Your task to perform on an android device: open app "Google Sheets" Image 0: 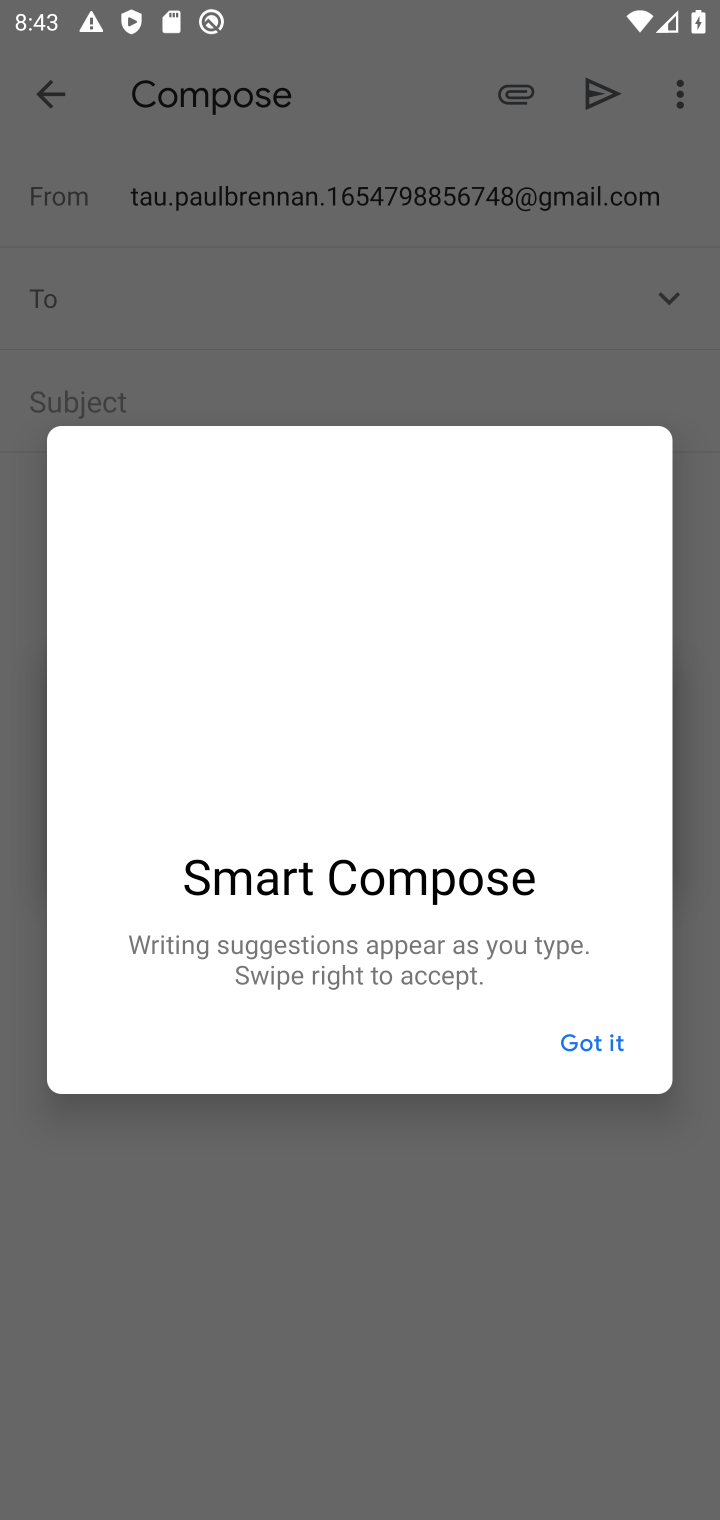
Step 0: press home button
Your task to perform on an android device: open app "Google Sheets" Image 1: 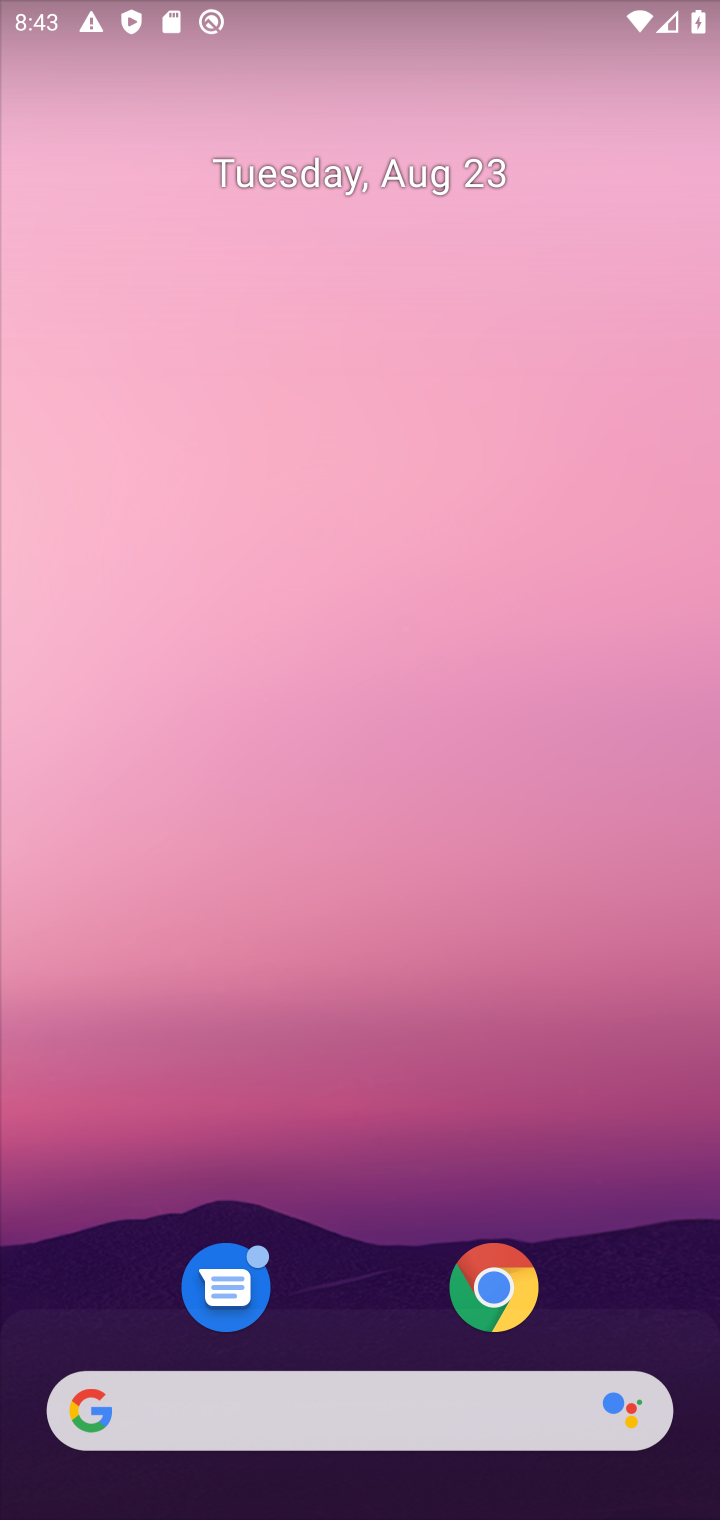
Step 1: drag from (372, 1344) to (590, 324)
Your task to perform on an android device: open app "Google Sheets" Image 2: 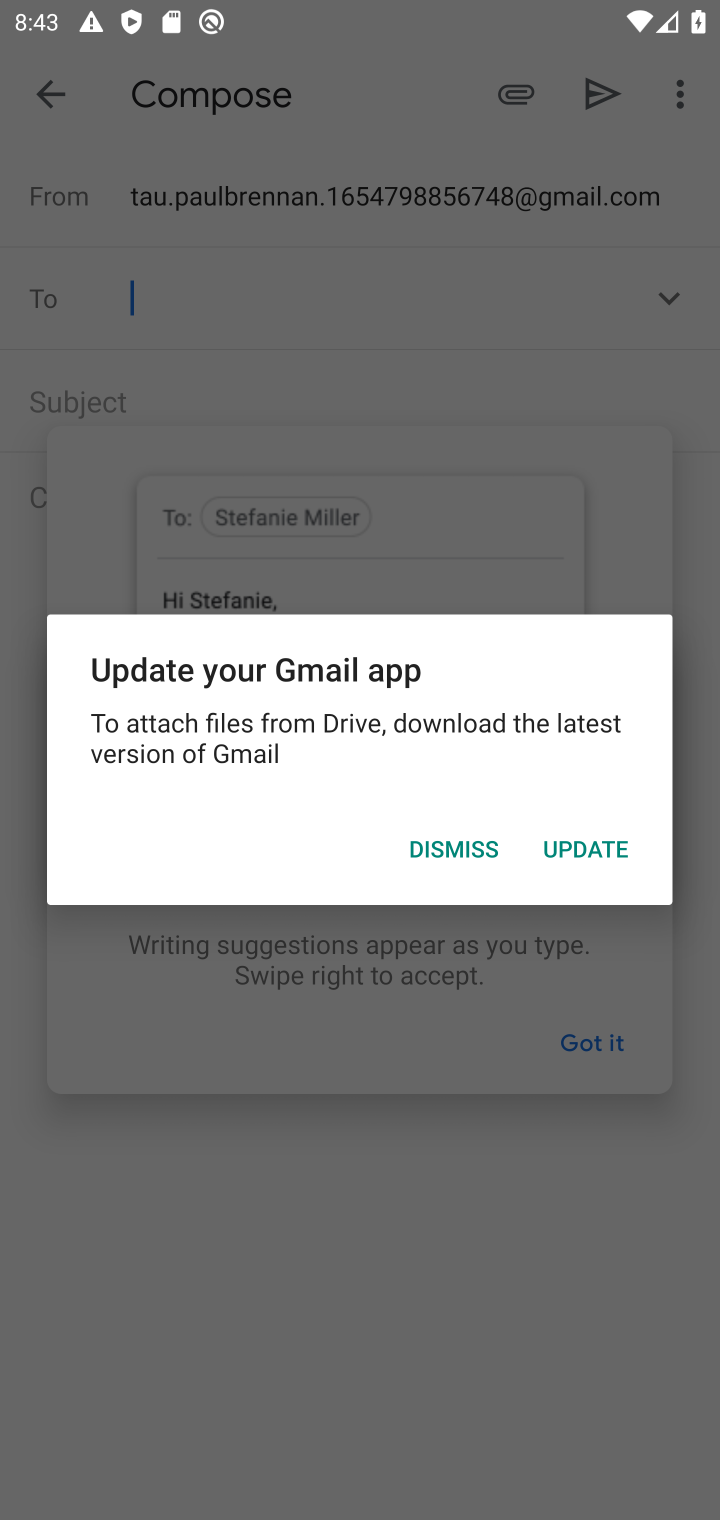
Step 2: press home button
Your task to perform on an android device: open app "Google Sheets" Image 3: 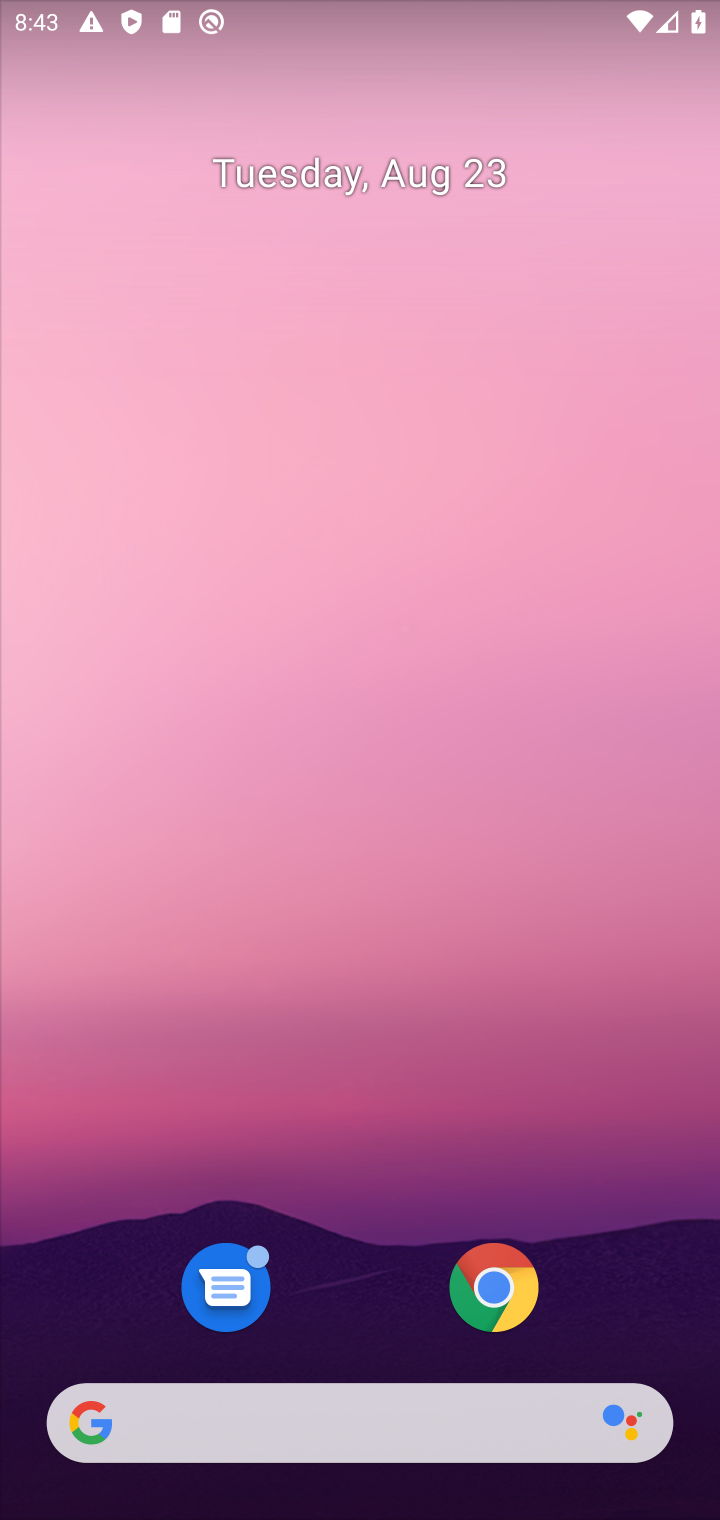
Step 3: drag from (376, 1380) to (399, 219)
Your task to perform on an android device: open app "Google Sheets" Image 4: 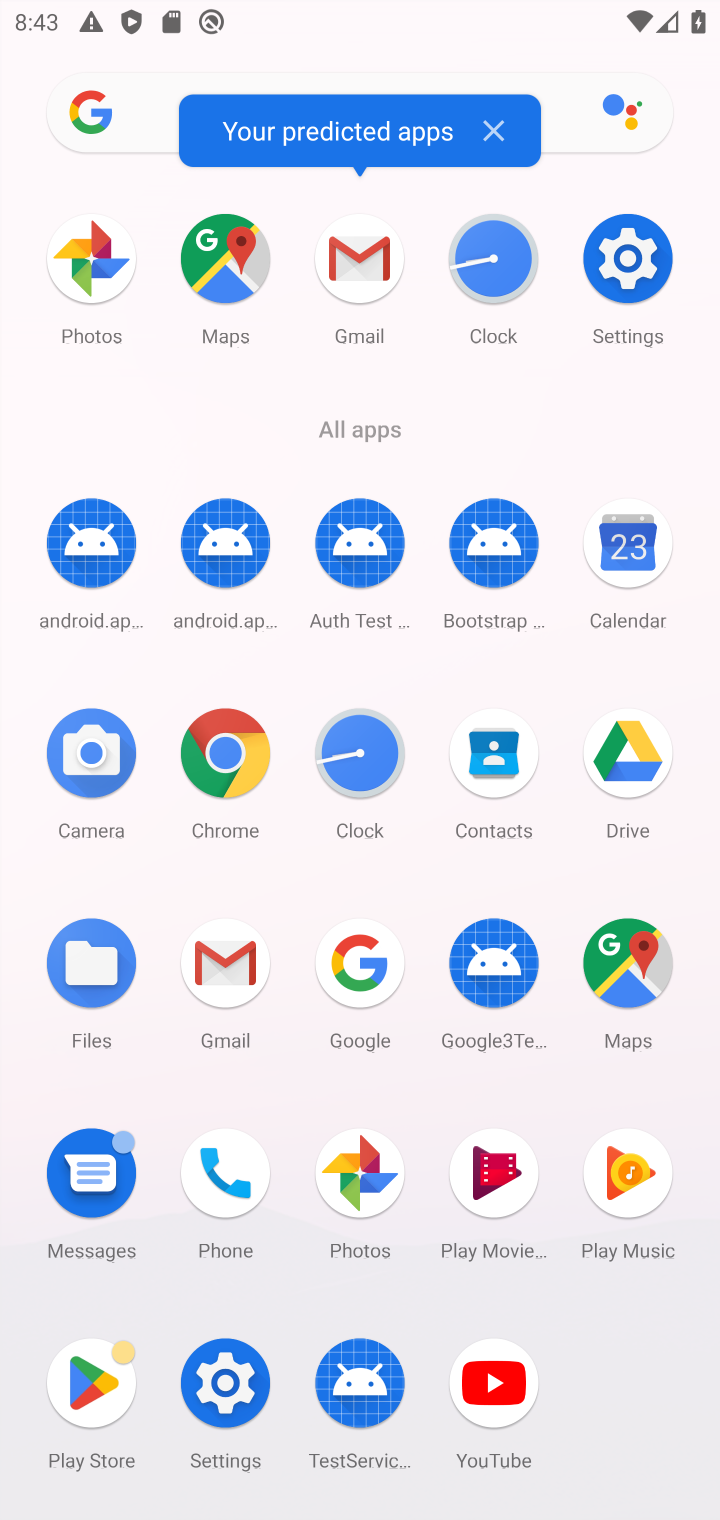
Step 4: drag from (86, 1383) to (369, 709)
Your task to perform on an android device: open app "Google Sheets" Image 5: 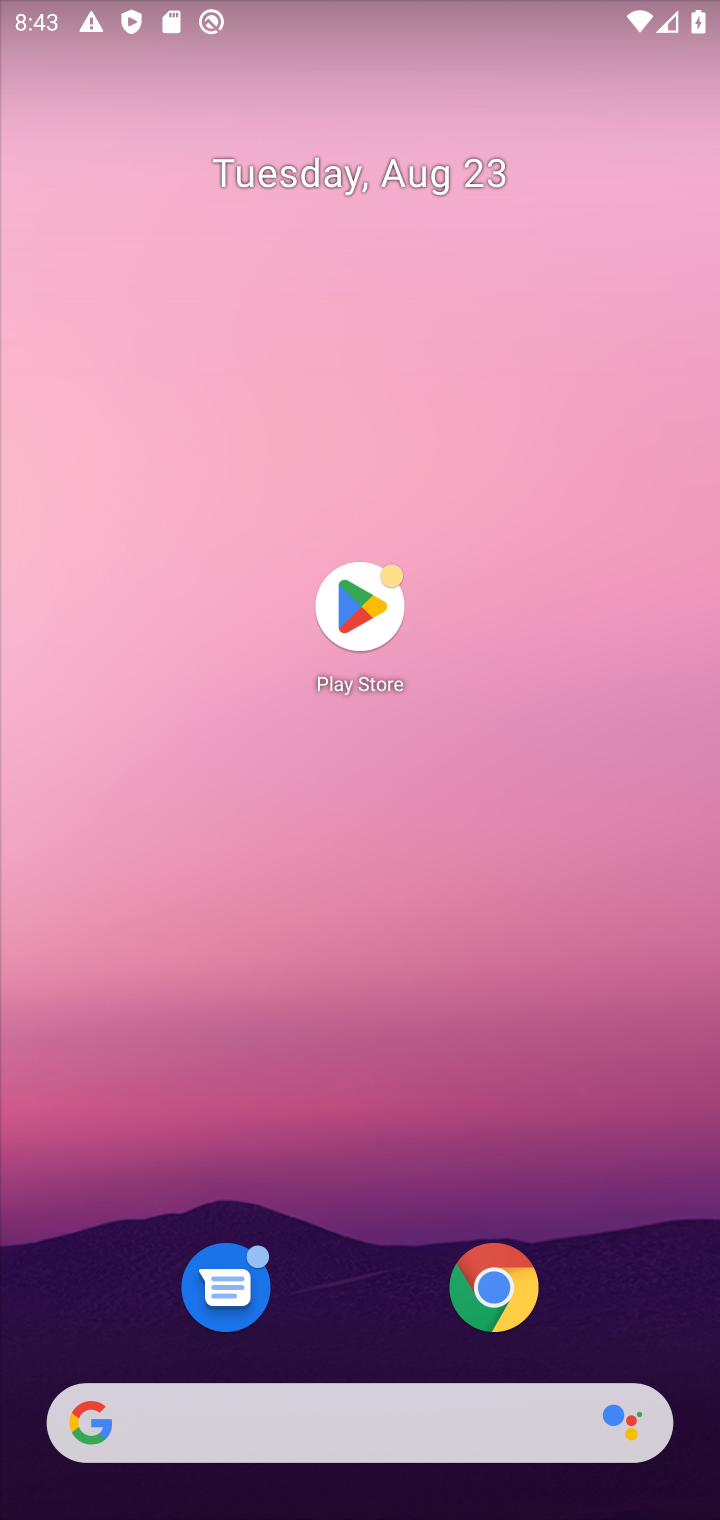
Step 5: click (363, 625)
Your task to perform on an android device: open app "Google Sheets" Image 6: 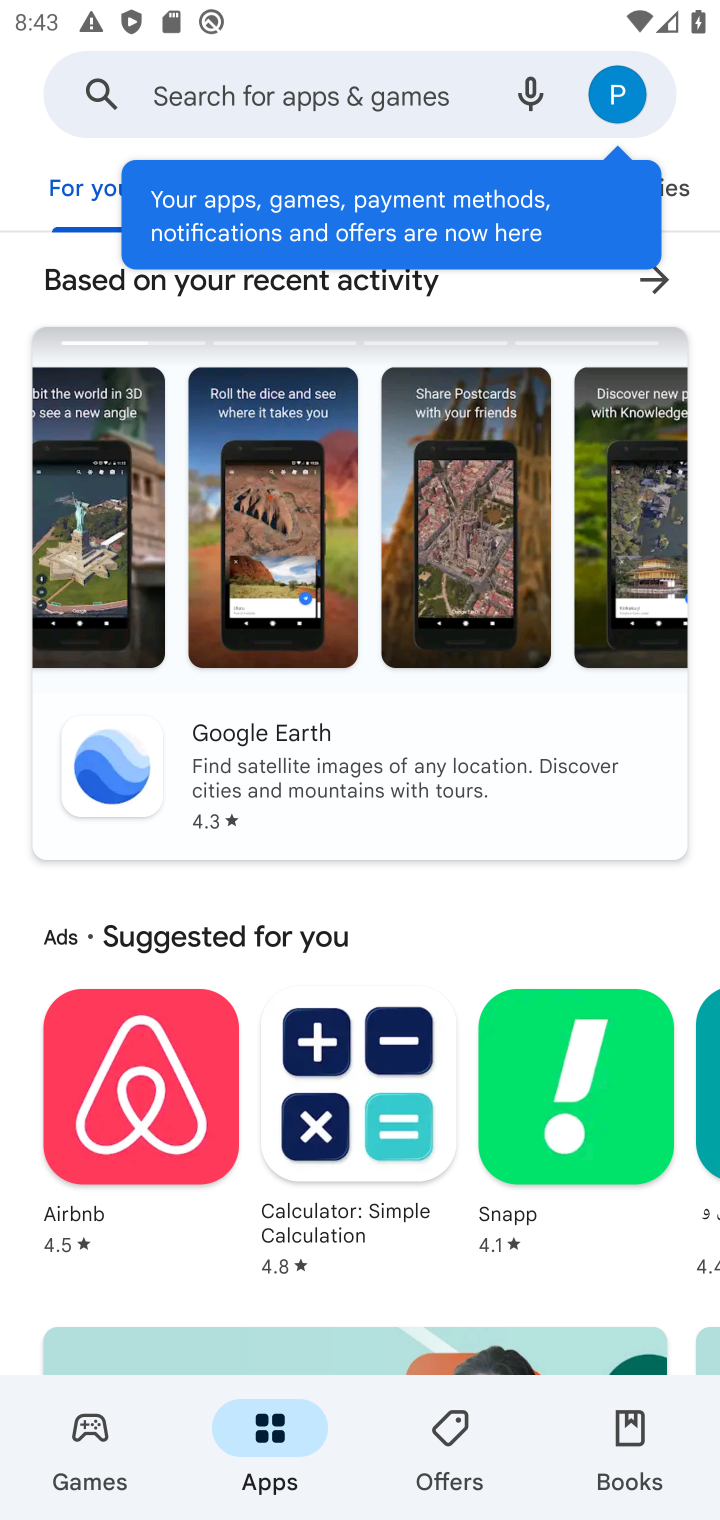
Step 6: click (337, 90)
Your task to perform on an android device: open app "Google Sheets" Image 7: 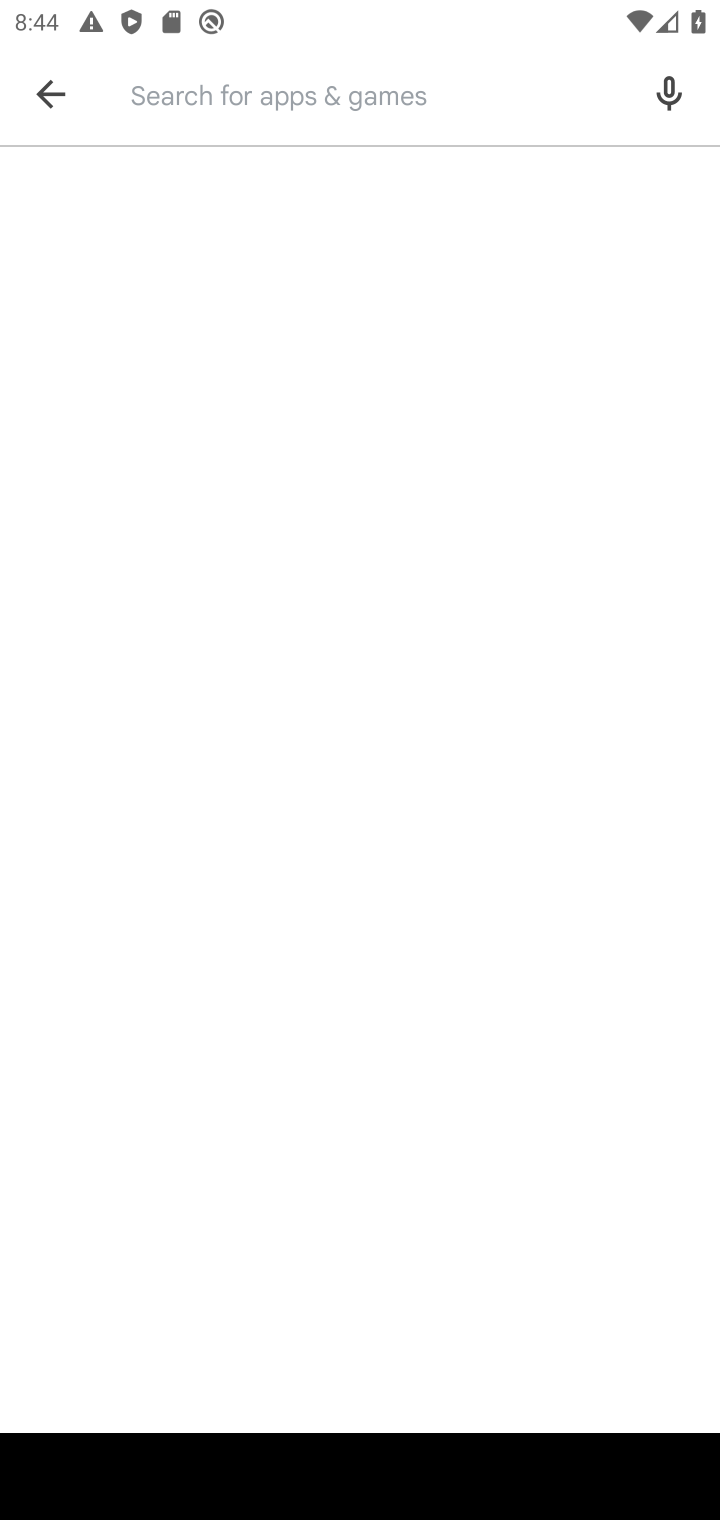
Step 7: type "Google Sheets"
Your task to perform on an android device: open app "Google Sheets" Image 8: 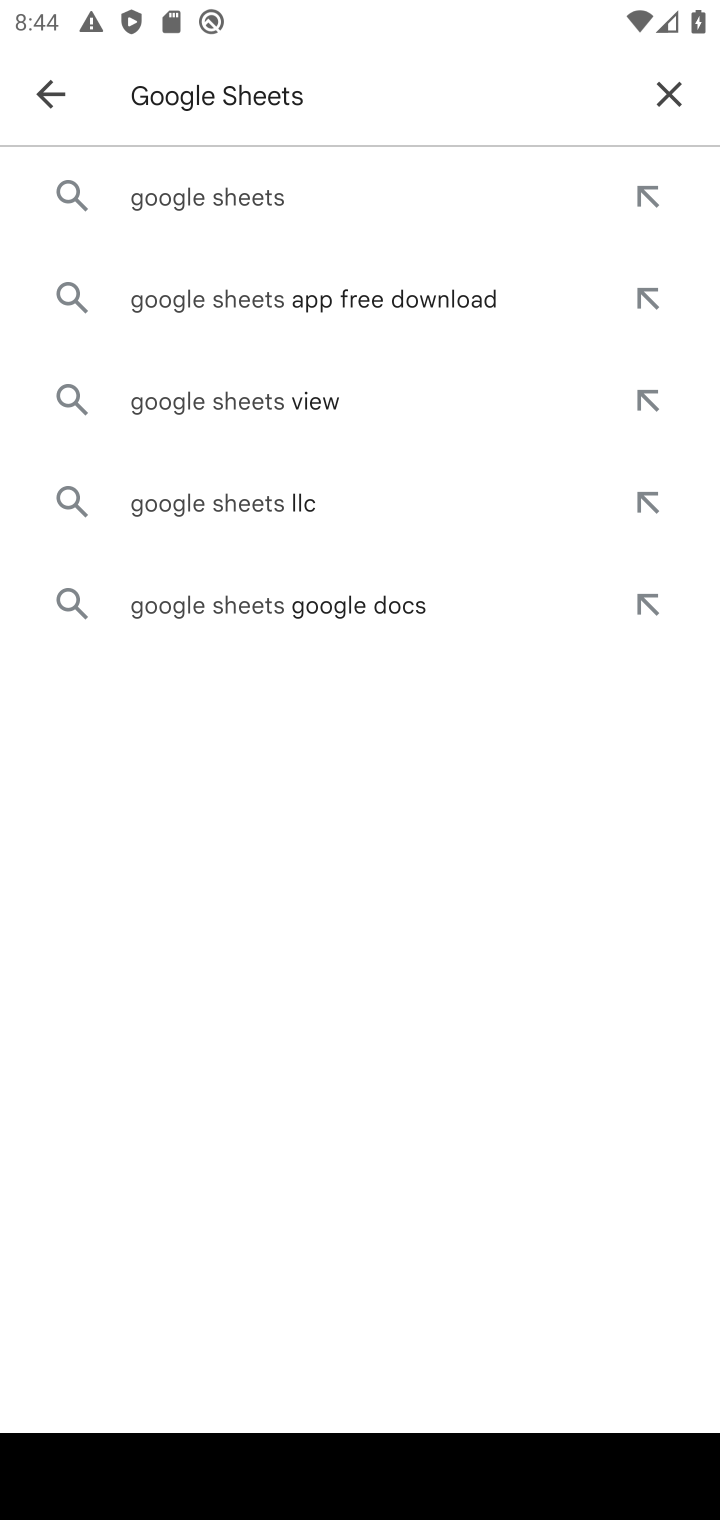
Step 8: click (230, 197)
Your task to perform on an android device: open app "Google Sheets" Image 9: 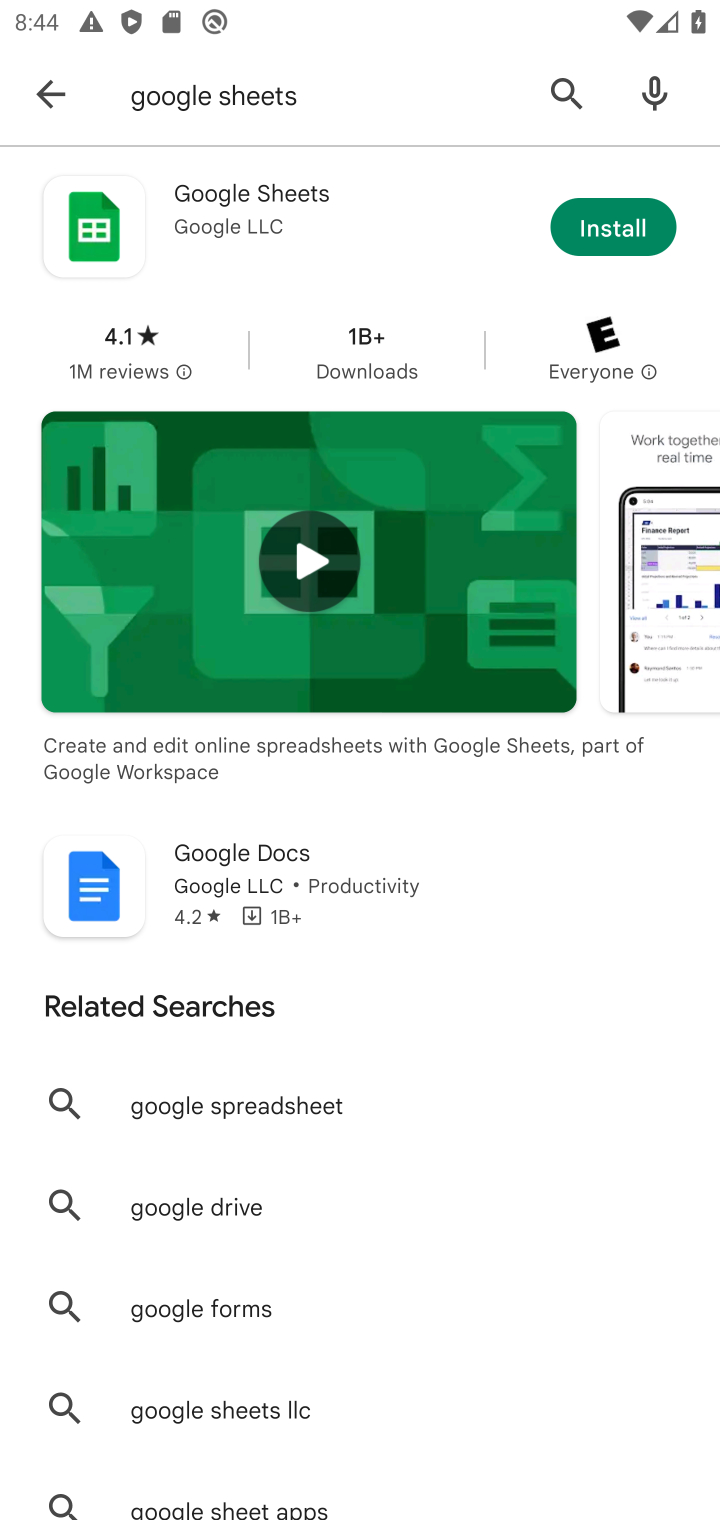
Step 9: task complete